Your task to perform on an android device: Go to notification settings Image 0: 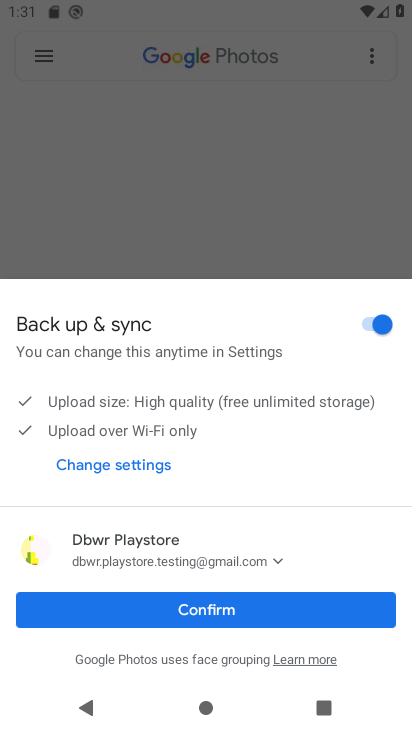
Step 0: press home button
Your task to perform on an android device: Go to notification settings Image 1: 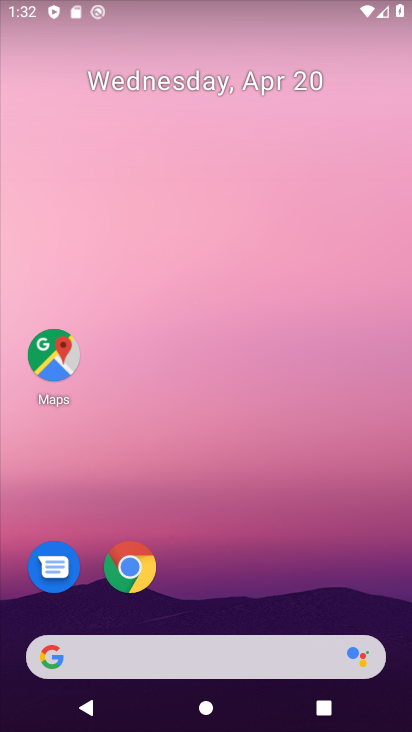
Step 1: drag from (191, 443) to (190, 133)
Your task to perform on an android device: Go to notification settings Image 2: 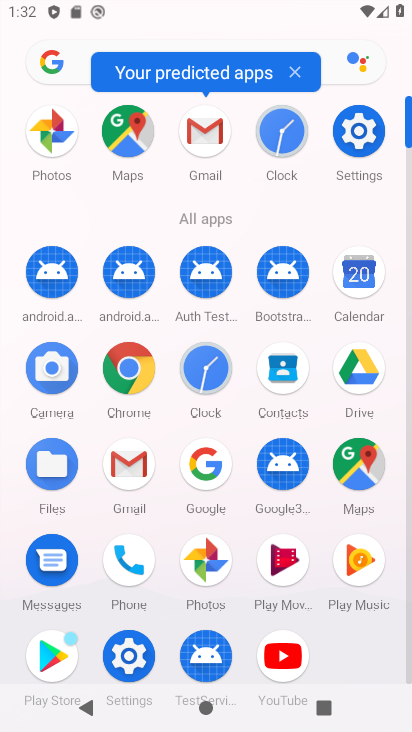
Step 2: click (365, 141)
Your task to perform on an android device: Go to notification settings Image 3: 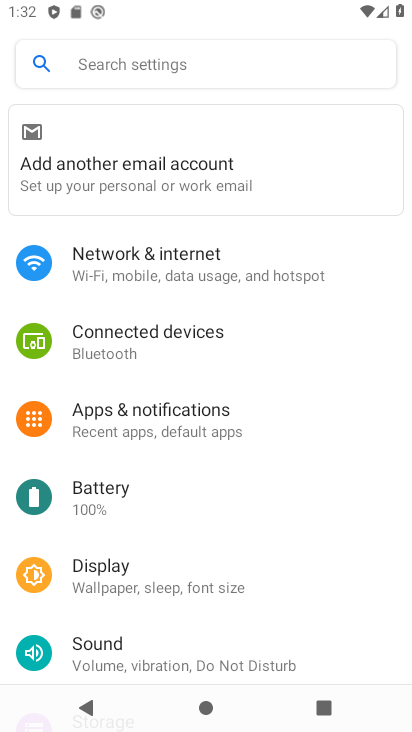
Step 3: click (189, 416)
Your task to perform on an android device: Go to notification settings Image 4: 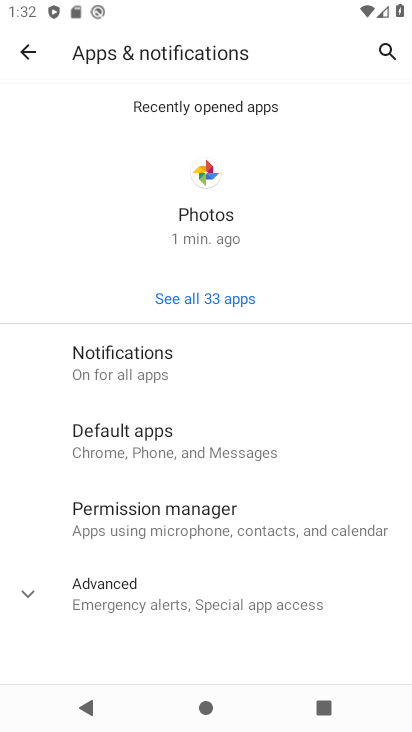
Step 4: click (157, 376)
Your task to perform on an android device: Go to notification settings Image 5: 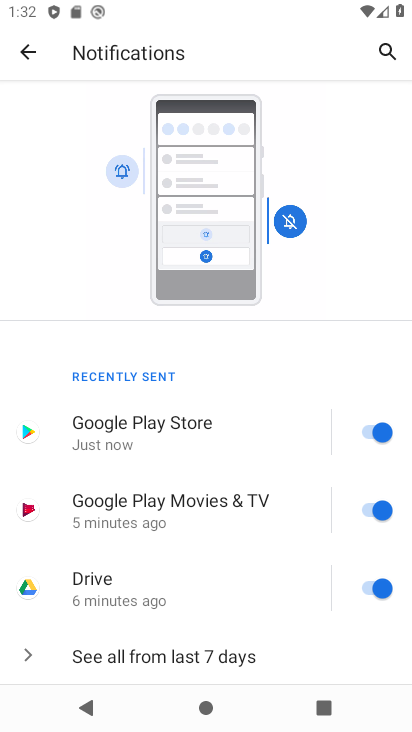
Step 5: task complete